Your task to perform on an android device: turn off improve location accuracy Image 0: 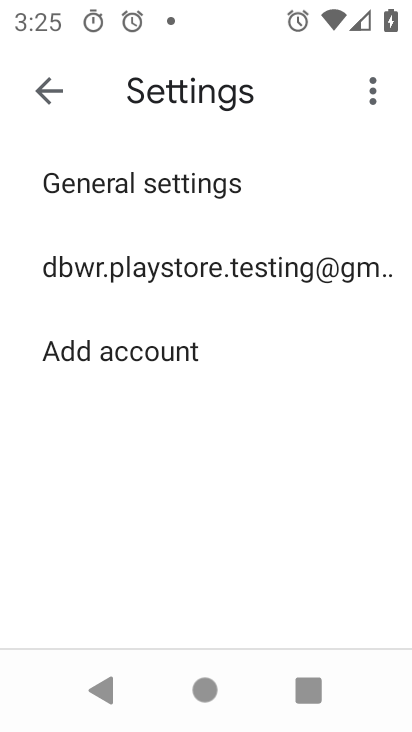
Step 0: press home button
Your task to perform on an android device: turn off improve location accuracy Image 1: 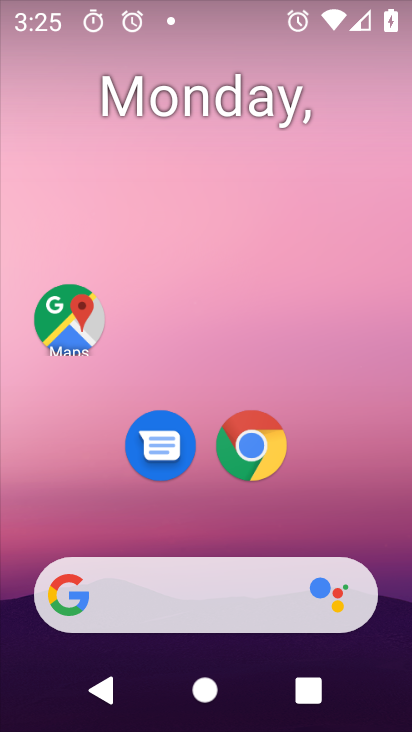
Step 1: drag from (195, 556) to (195, 46)
Your task to perform on an android device: turn off improve location accuracy Image 2: 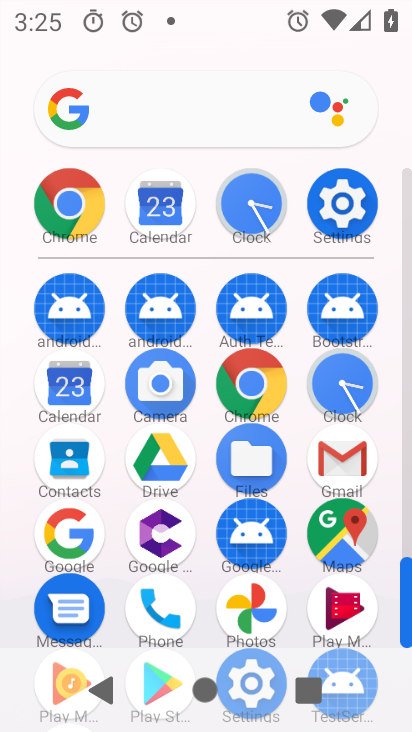
Step 2: click (323, 223)
Your task to perform on an android device: turn off improve location accuracy Image 3: 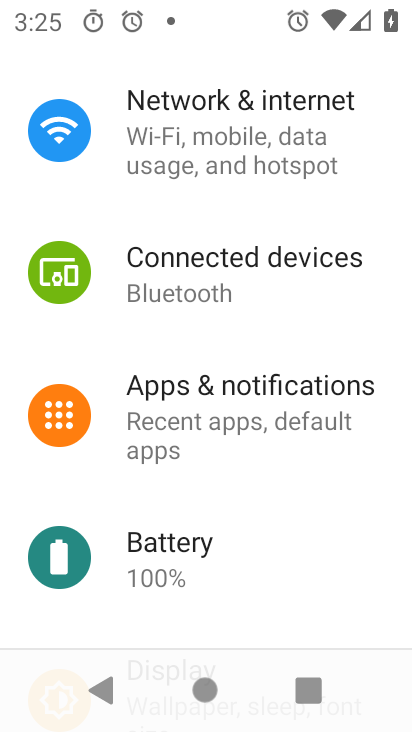
Step 3: drag from (152, 545) to (125, 249)
Your task to perform on an android device: turn off improve location accuracy Image 4: 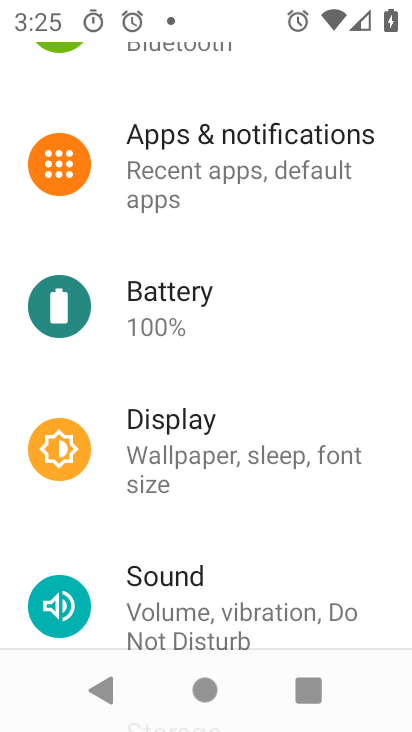
Step 4: drag from (160, 563) to (153, 160)
Your task to perform on an android device: turn off improve location accuracy Image 5: 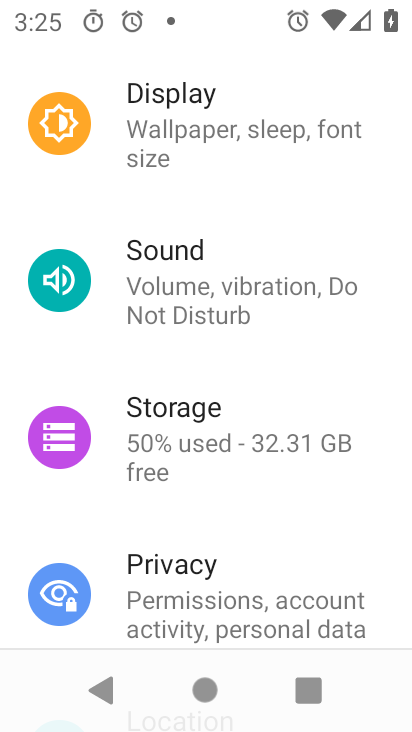
Step 5: drag from (198, 518) to (145, 104)
Your task to perform on an android device: turn off improve location accuracy Image 6: 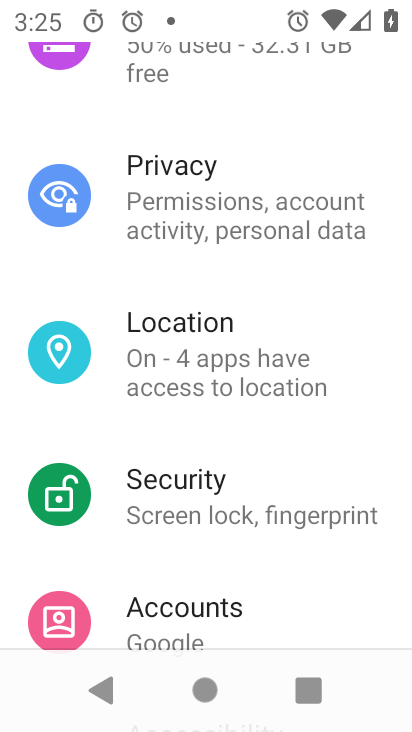
Step 6: click (187, 372)
Your task to perform on an android device: turn off improve location accuracy Image 7: 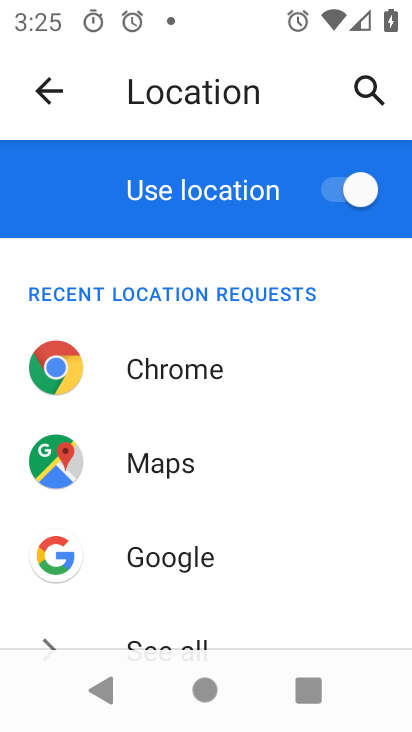
Step 7: drag from (227, 551) to (232, 45)
Your task to perform on an android device: turn off improve location accuracy Image 8: 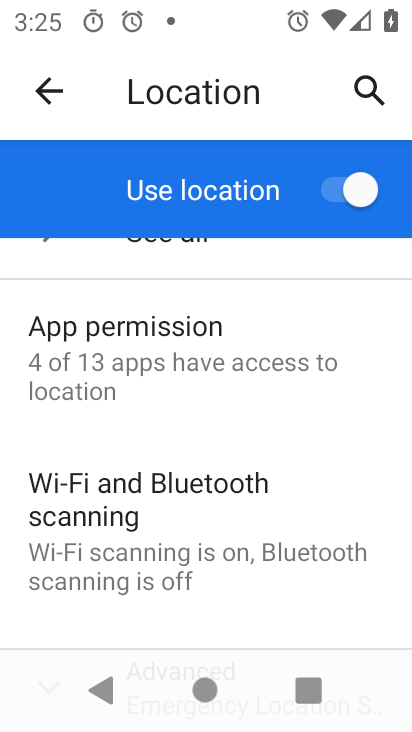
Step 8: drag from (246, 479) to (244, 155)
Your task to perform on an android device: turn off improve location accuracy Image 9: 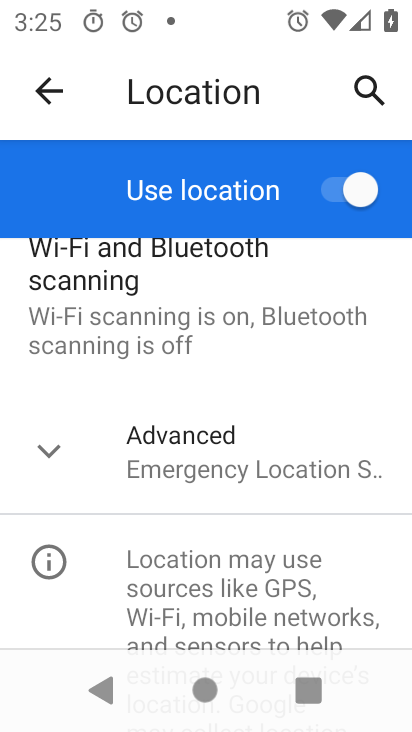
Step 9: click (197, 458)
Your task to perform on an android device: turn off improve location accuracy Image 10: 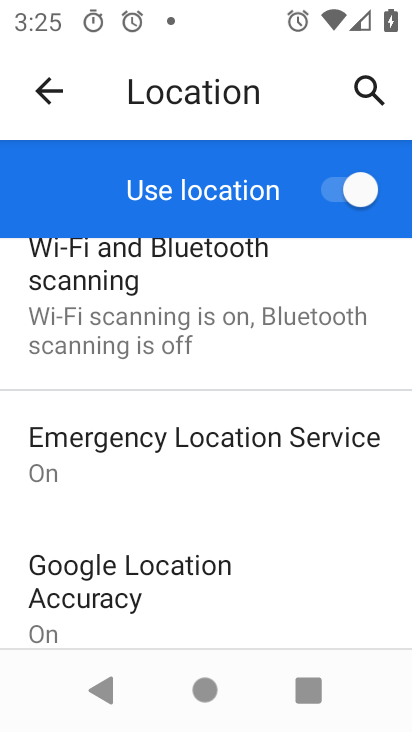
Step 10: click (232, 599)
Your task to perform on an android device: turn off improve location accuracy Image 11: 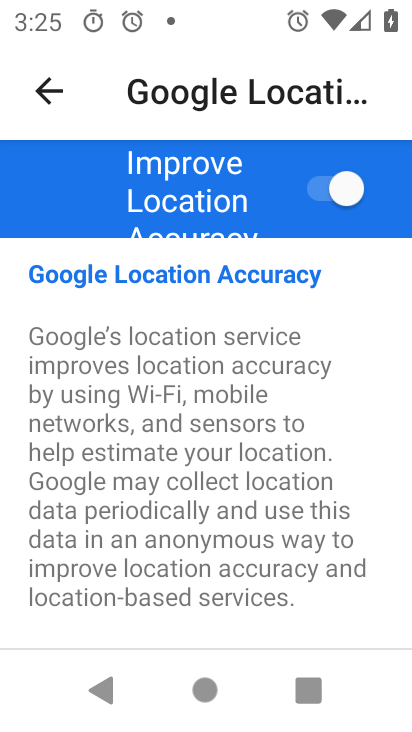
Step 11: click (348, 191)
Your task to perform on an android device: turn off improve location accuracy Image 12: 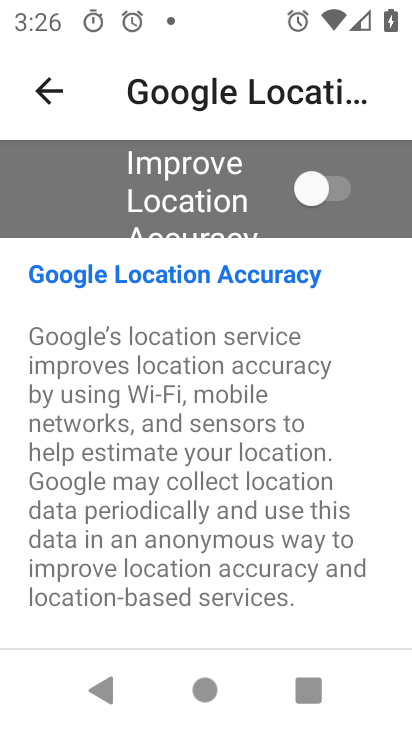
Step 12: task complete